Your task to perform on an android device: View the shopping cart on amazon. Add bose soundlink mini to the cart on amazon, then select checkout. Image 0: 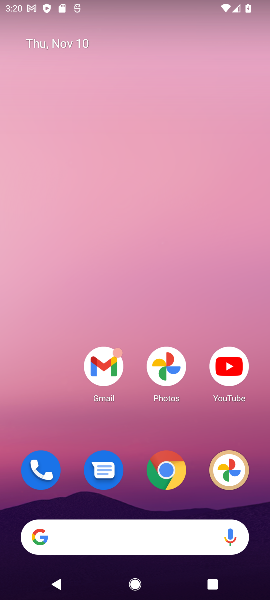
Step 0: click (165, 474)
Your task to perform on an android device: View the shopping cart on amazon. Add bose soundlink mini to the cart on amazon, then select checkout. Image 1: 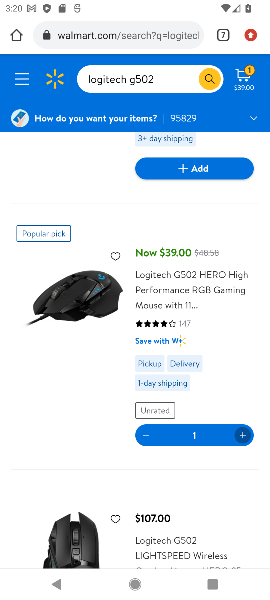
Step 1: click (222, 37)
Your task to perform on an android device: View the shopping cart on amazon. Add bose soundlink mini to the cart on amazon, then select checkout. Image 2: 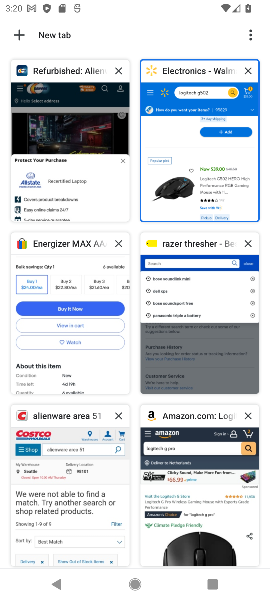
Step 2: click (187, 455)
Your task to perform on an android device: View the shopping cart on amazon. Add bose soundlink mini to the cart on amazon, then select checkout. Image 3: 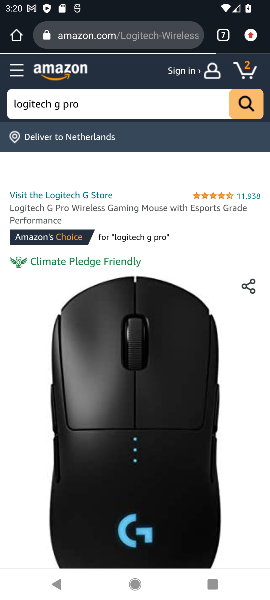
Step 3: click (96, 99)
Your task to perform on an android device: View the shopping cart on amazon. Add bose soundlink mini to the cart on amazon, then select checkout. Image 4: 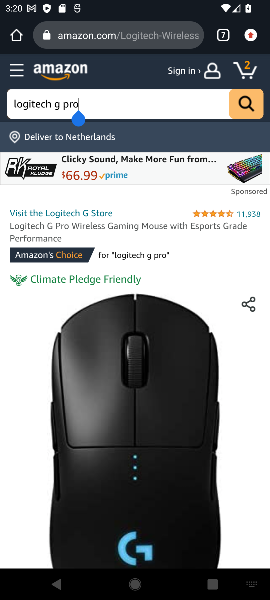
Step 4: click (171, 113)
Your task to perform on an android device: View the shopping cart on amazon. Add bose soundlink mini to the cart on amazon, then select checkout. Image 5: 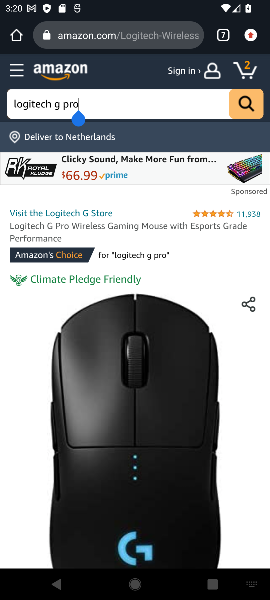
Step 5: click (171, 113)
Your task to perform on an android device: View the shopping cart on amazon. Add bose soundlink mini to the cart on amazon, then select checkout. Image 6: 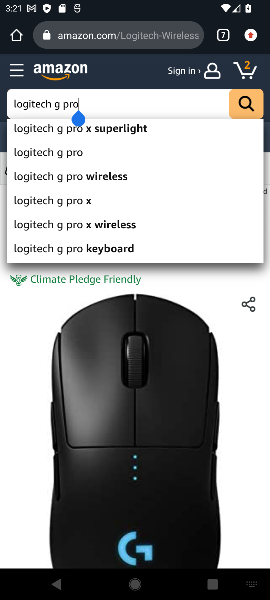
Step 6: click (239, 410)
Your task to perform on an android device: View the shopping cart on amazon. Add bose soundlink mini to the cart on amazon, then select checkout. Image 7: 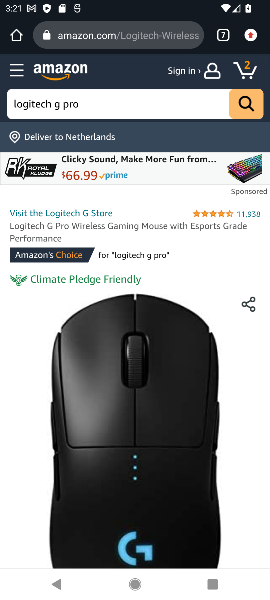
Step 7: click (217, 110)
Your task to perform on an android device: View the shopping cart on amazon. Add bose soundlink mini to the cart on amazon, then select checkout. Image 8: 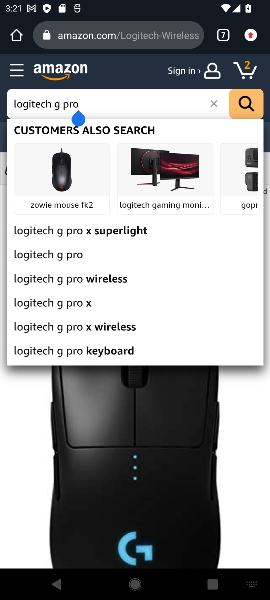
Step 8: click (211, 103)
Your task to perform on an android device: View the shopping cart on amazon. Add bose soundlink mini to the cart on amazon, then select checkout. Image 9: 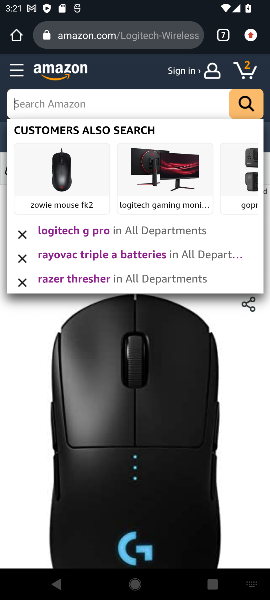
Step 9: type "bose soundlink mini "
Your task to perform on an android device: View the shopping cart on amazon. Add bose soundlink mini to the cart on amazon, then select checkout. Image 10: 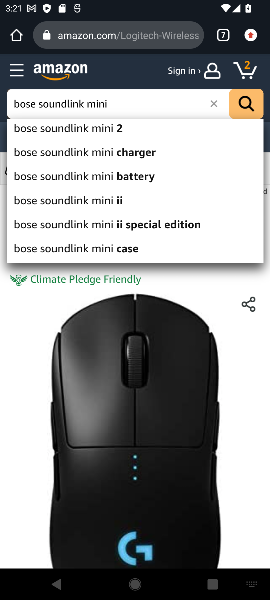
Step 10: click (68, 129)
Your task to perform on an android device: View the shopping cart on amazon. Add bose soundlink mini to the cart on amazon, then select checkout. Image 11: 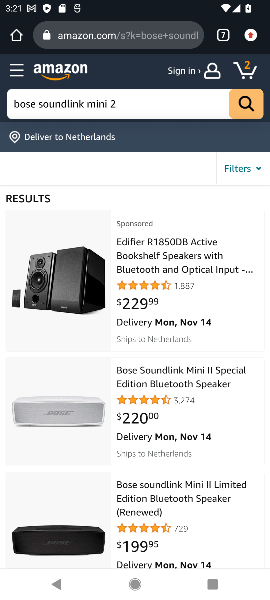
Step 11: click (175, 383)
Your task to perform on an android device: View the shopping cart on amazon. Add bose soundlink mini to the cart on amazon, then select checkout. Image 12: 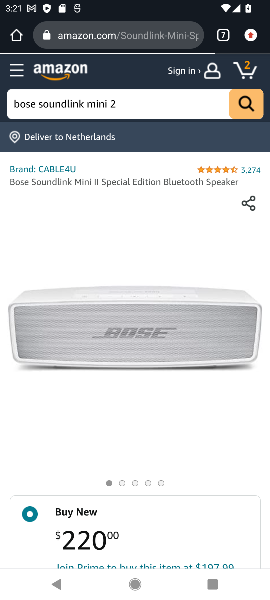
Step 12: drag from (198, 460) to (239, 93)
Your task to perform on an android device: View the shopping cart on amazon. Add bose soundlink mini to the cart on amazon, then select checkout. Image 13: 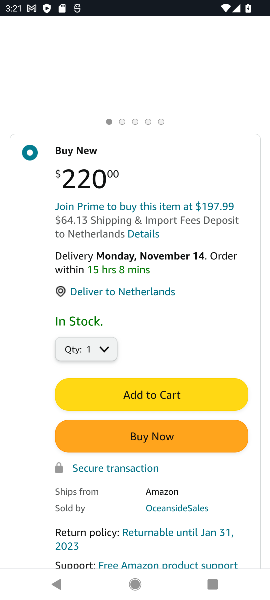
Step 13: click (168, 396)
Your task to perform on an android device: View the shopping cart on amazon. Add bose soundlink mini to the cart on amazon, then select checkout. Image 14: 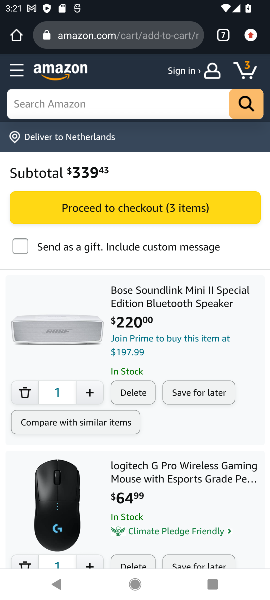
Step 14: click (168, 208)
Your task to perform on an android device: View the shopping cart on amazon. Add bose soundlink mini to the cart on amazon, then select checkout. Image 15: 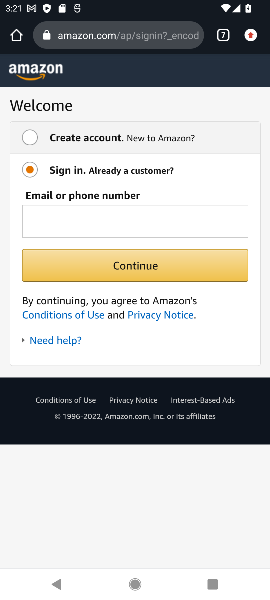
Step 15: task complete